Your task to perform on an android device: Go to display settings Image 0: 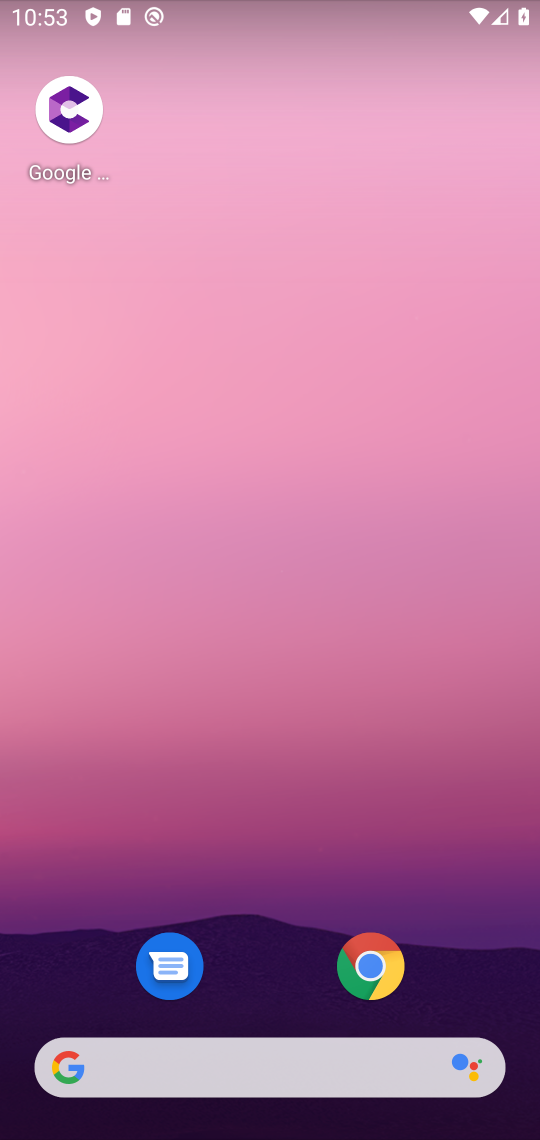
Step 0: drag from (292, 1028) to (302, 176)
Your task to perform on an android device: Go to display settings Image 1: 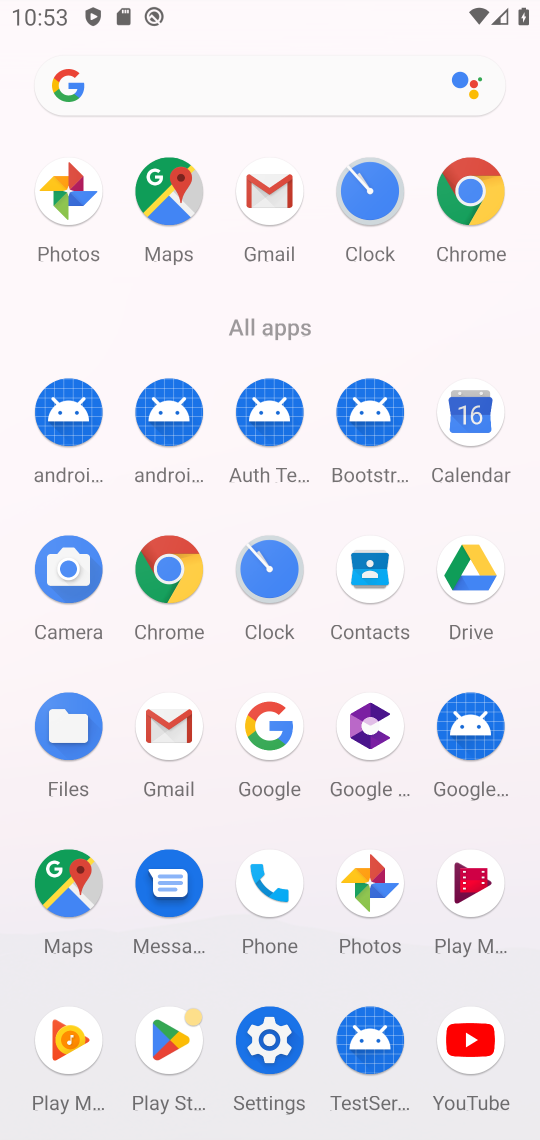
Step 1: click (266, 1030)
Your task to perform on an android device: Go to display settings Image 2: 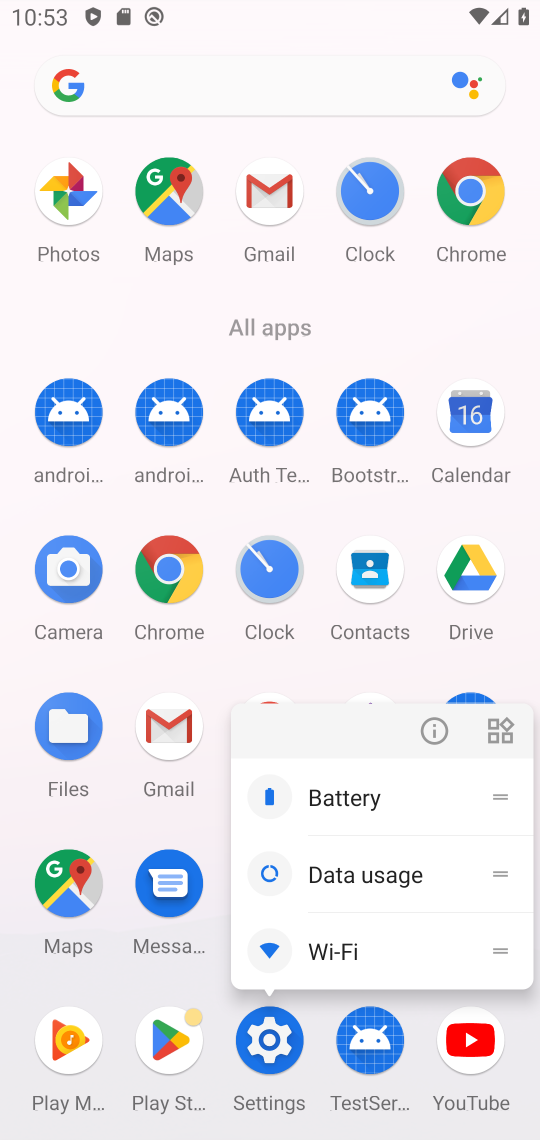
Step 2: click (280, 1040)
Your task to perform on an android device: Go to display settings Image 3: 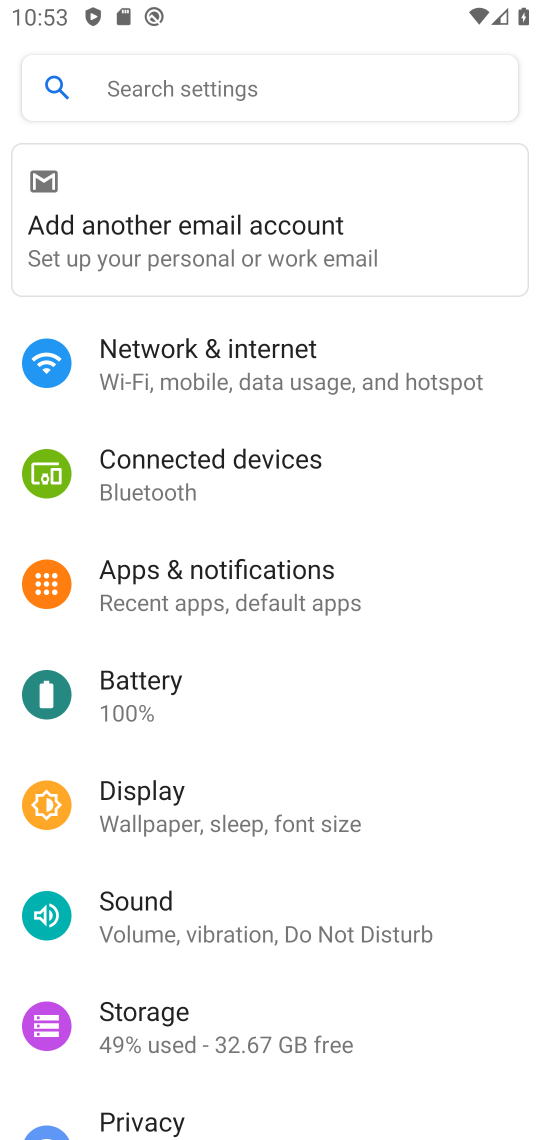
Step 3: click (164, 806)
Your task to perform on an android device: Go to display settings Image 4: 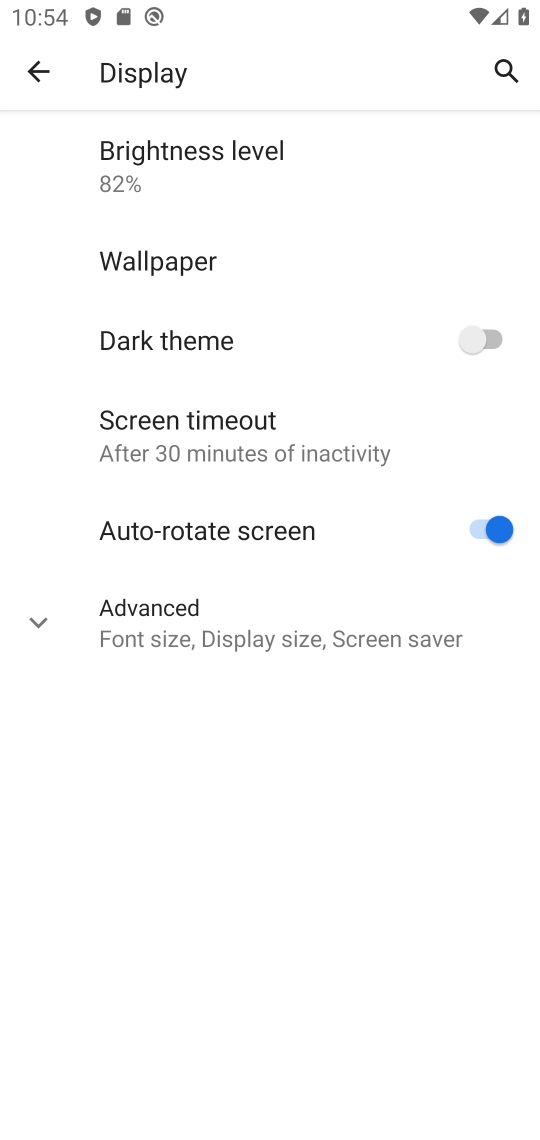
Step 4: task complete